Your task to perform on an android device: Open the web browser Image 0: 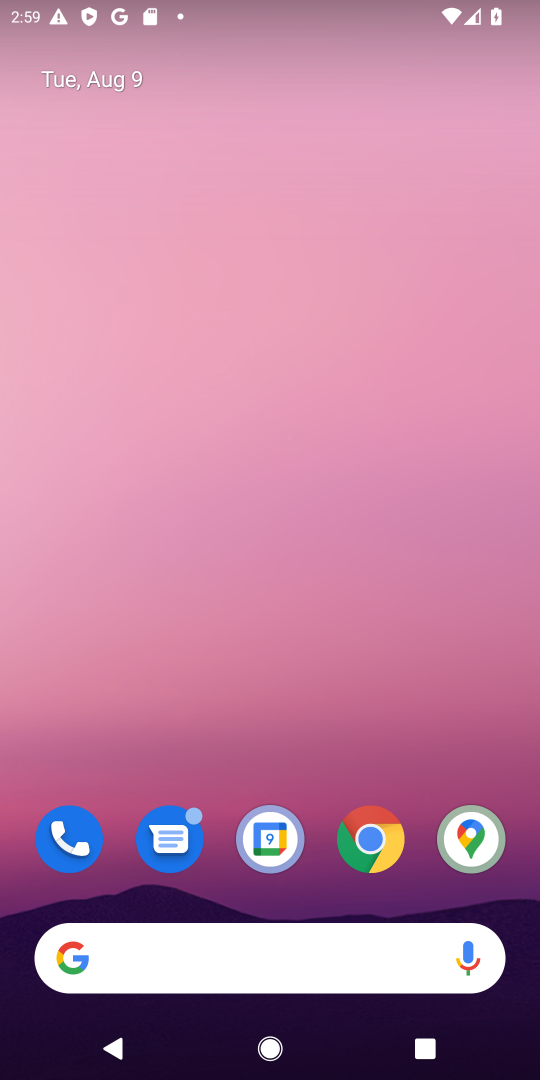
Step 0: press home button
Your task to perform on an android device: Open the web browser Image 1: 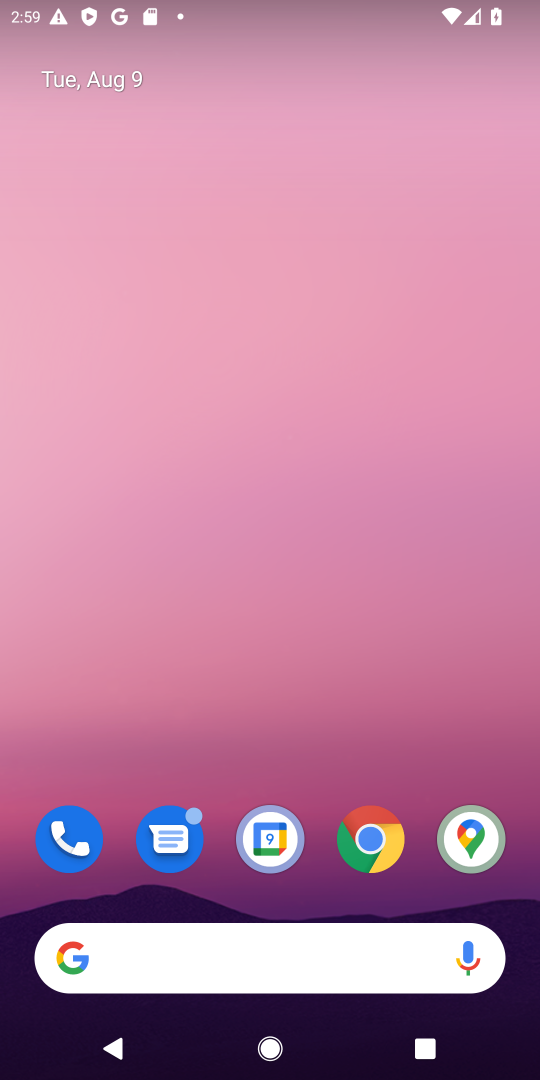
Step 1: click (71, 973)
Your task to perform on an android device: Open the web browser Image 2: 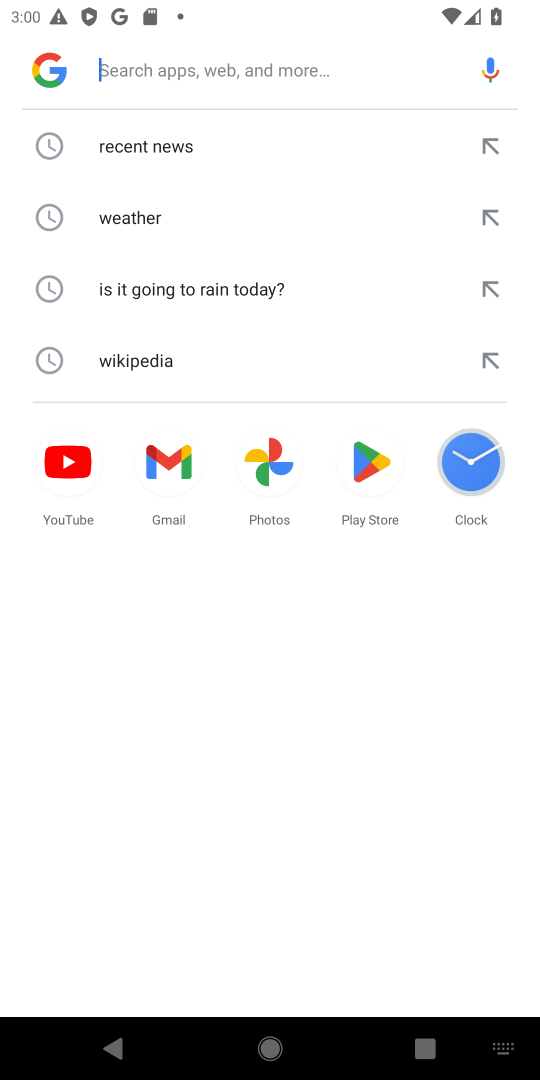
Step 2: click (40, 67)
Your task to perform on an android device: Open the web browser Image 3: 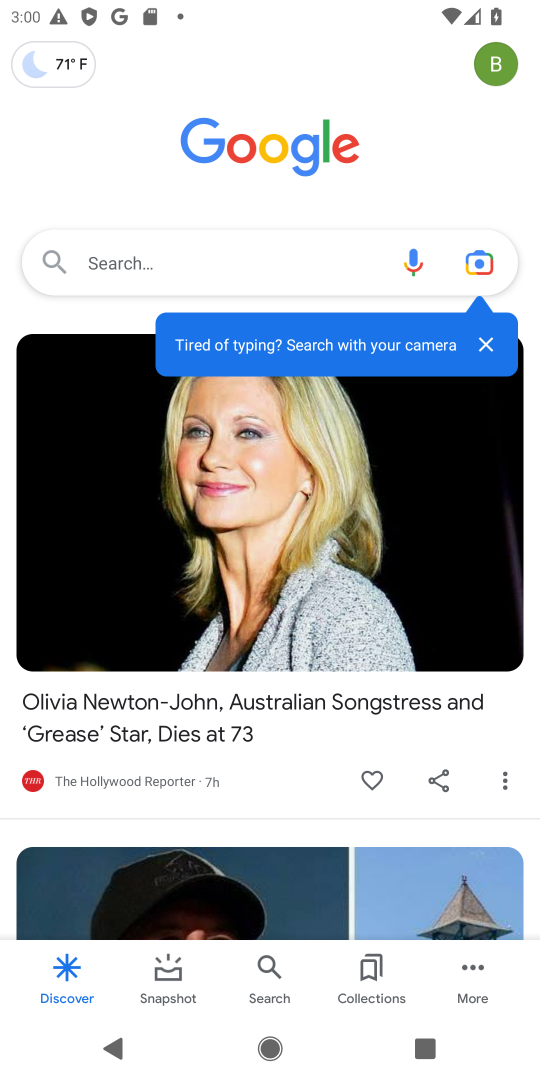
Step 3: task complete